Your task to perform on an android device: change the clock display to analog Image 0: 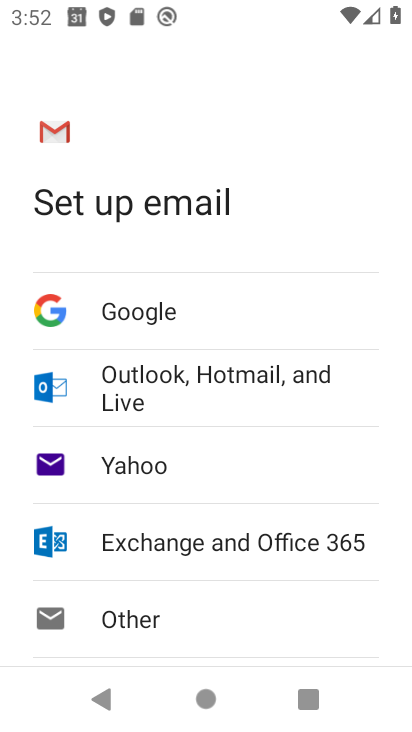
Step 0: press home button
Your task to perform on an android device: change the clock display to analog Image 1: 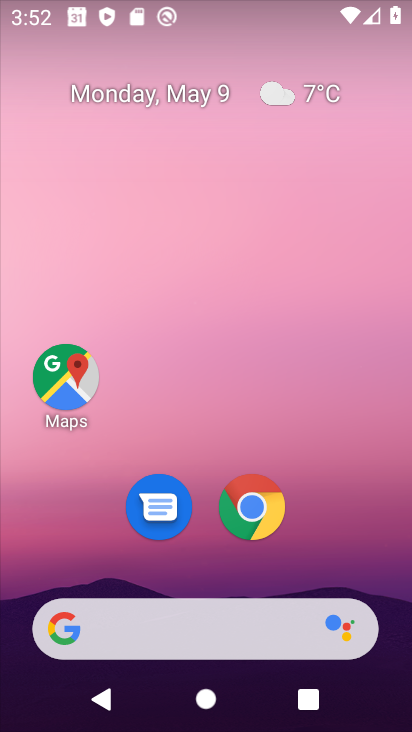
Step 1: drag from (269, 652) to (250, 182)
Your task to perform on an android device: change the clock display to analog Image 2: 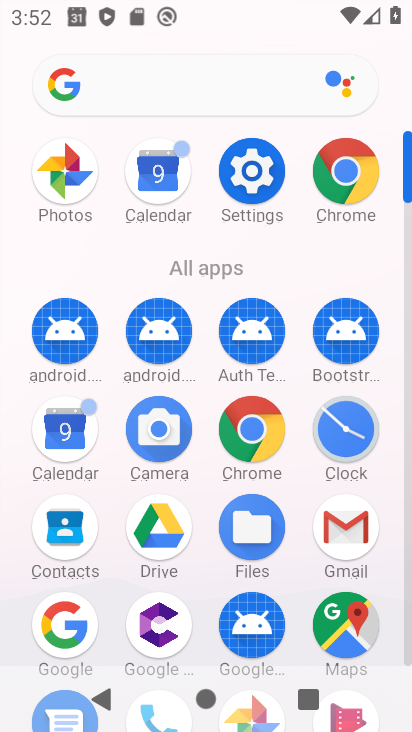
Step 2: click (333, 426)
Your task to perform on an android device: change the clock display to analog Image 3: 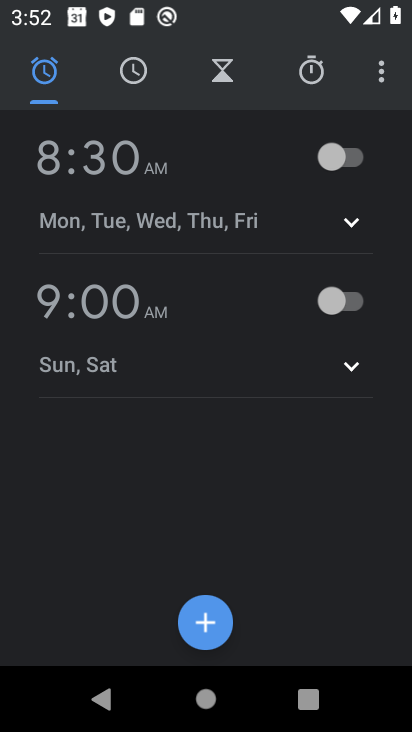
Step 3: click (371, 94)
Your task to perform on an android device: change the clock display to analog Image 4: 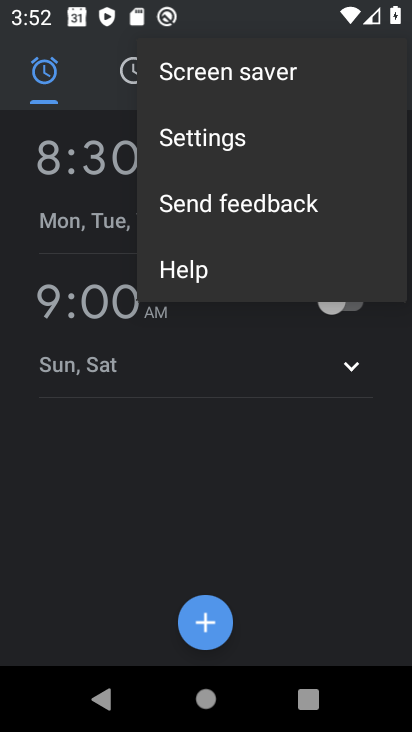
Step 4: click (212, 140)
Your task to perform on an android device: change the clock display to analog Image 5: 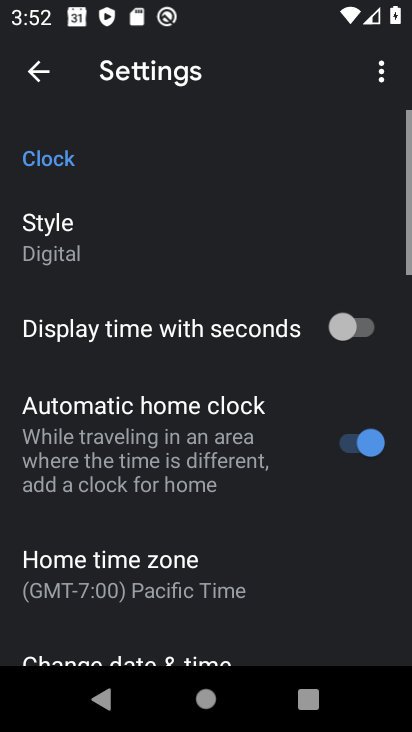
Step 5: click (146, 208)
Your task to perform on an android device: change the clock display to analog Image 6: 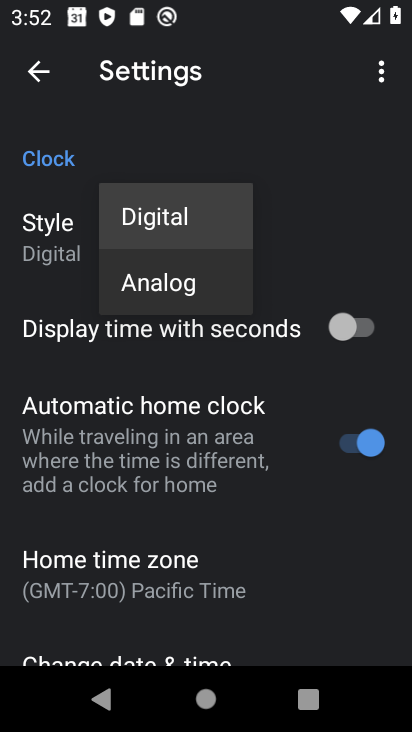
Step 6: click (180, 287)
Your task to perform on an android device: change the clock display to analog Image 7: 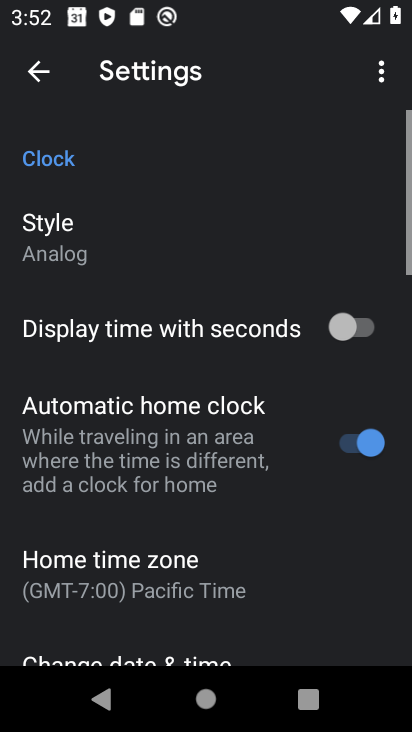
Step 7: task complete